Your task to perform on an android device: Search for Mexican restaurants on Maps Image 0: 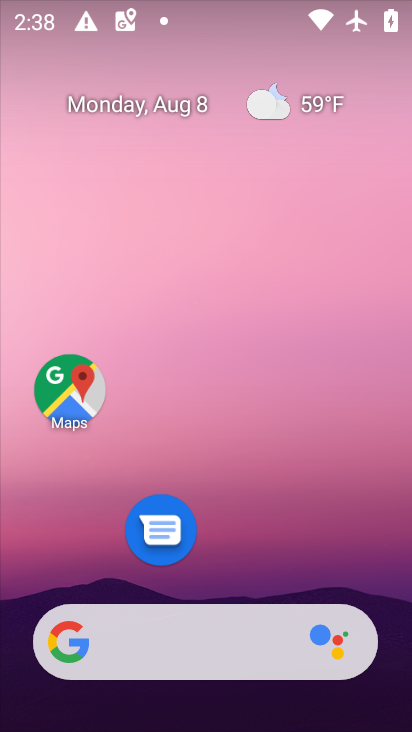
Step 0: drag from (217, 553) to (256, 65)
Your task to perform on an android device: Search for Mexican restaurants on Maps Image 1: 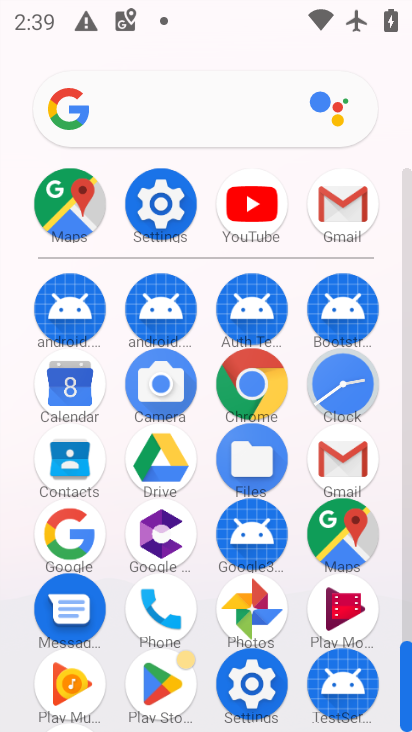
Step 1: click (350, 527)
Your task to perform on an android device: Search for Mexican restaurants on Maps Image 2: 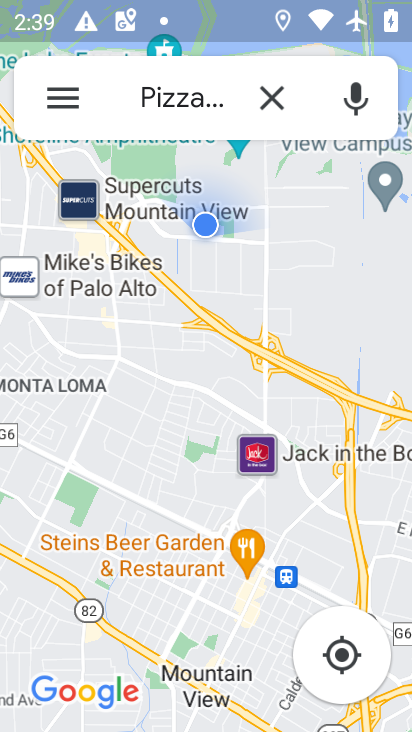
Step 2: click (271, 105)
Your task to perform on an android device: Search for Mexican restaurants on Maps Image 3: 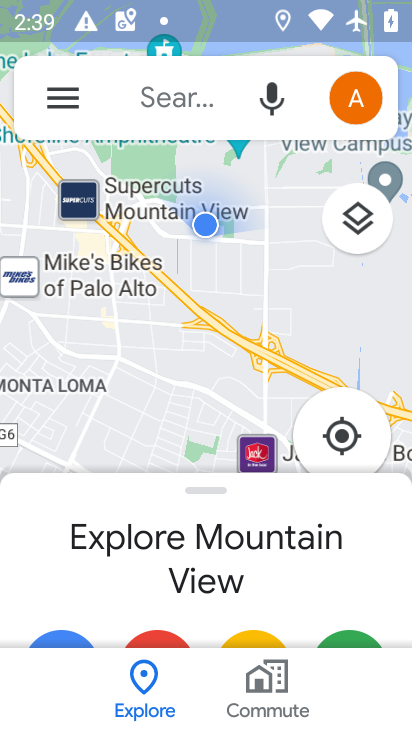
Step 3: click (198, 90)
Your task to perform on an android device: Search for Mexican restaurants on Maps Image 4: 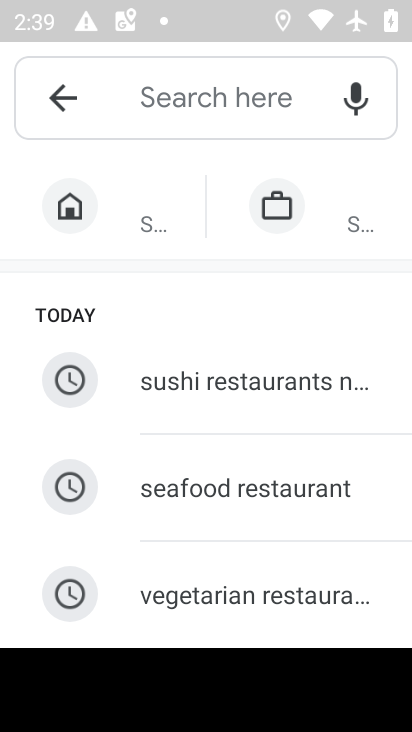
Step 4: type "vegetarian restaurants"
Your task to perform on an android device: Search for Mexican restaurants on Maps Image 5: 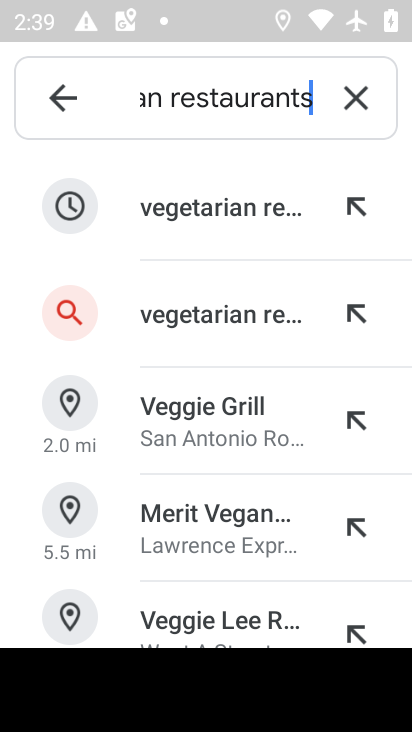
Step 5: click (198, 203)
Your task to perform on an android device: Search for Mexican restaurants on Maps Image 6: 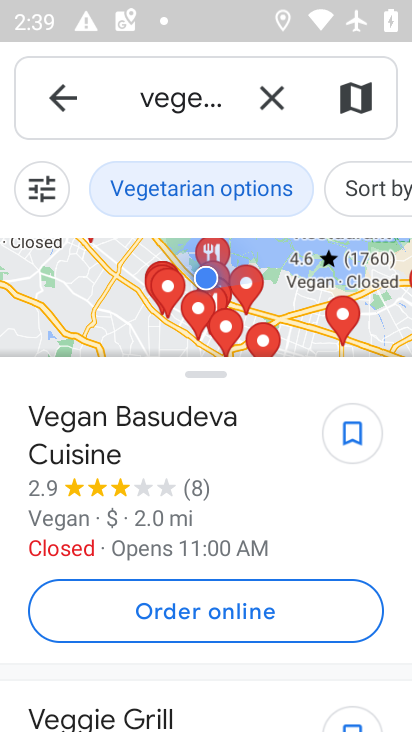
Step 6: task complete